Your task to perform on an android device: Go to sound settings Image 0: 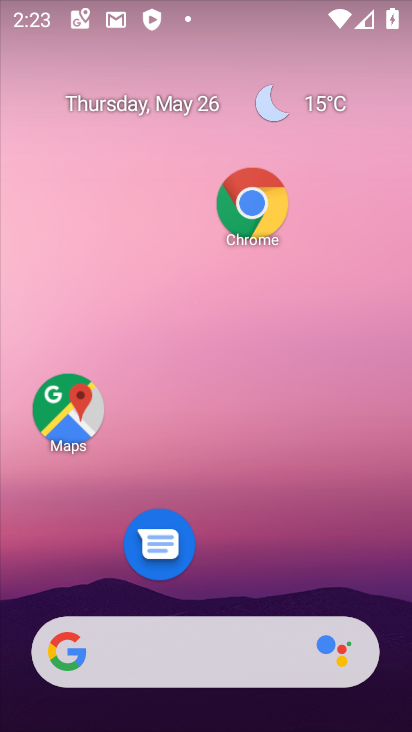
Step 0: drag from (165, 532) to (241, 153)
Your task to perform on an android device: Go to sound settings Image 1: 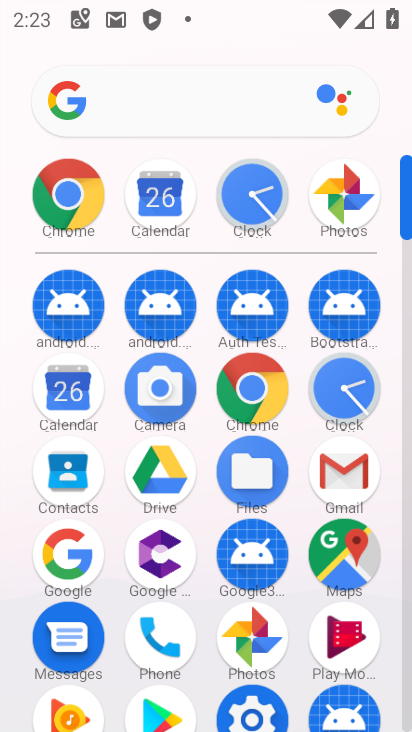
Step 1: drag from (164, 541) to (265, 83)
Your task to perform on an android device: Go to sound settings Image 2: 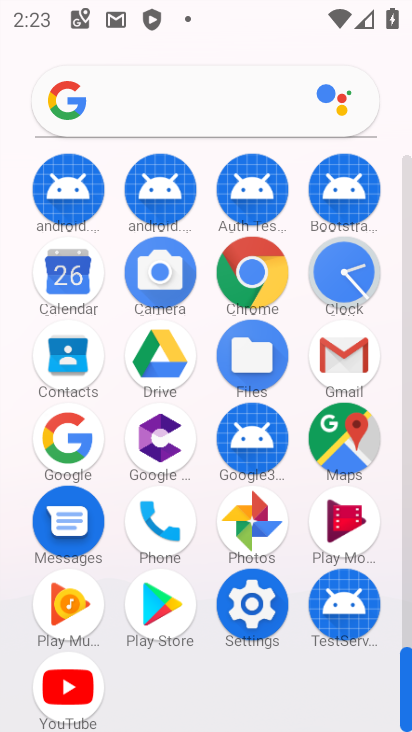
Step 2: click (245, 623)
Your task to perform on an android device: Go to sound settings Image 3: 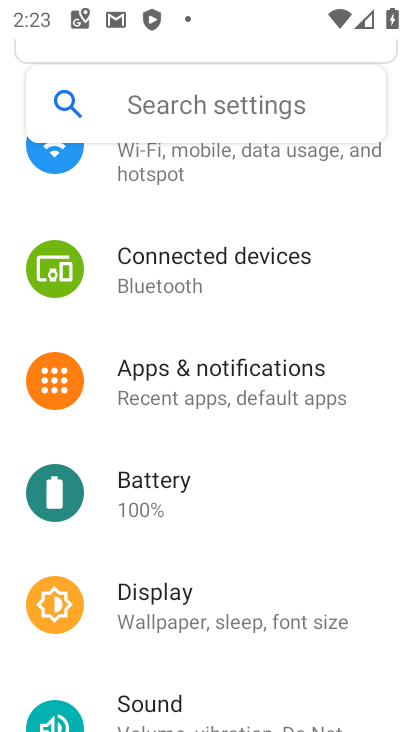
Step 3: drag from (199, 611) to (265, 138)
Your task to perform on an android device: Go to sound settings Image 4: 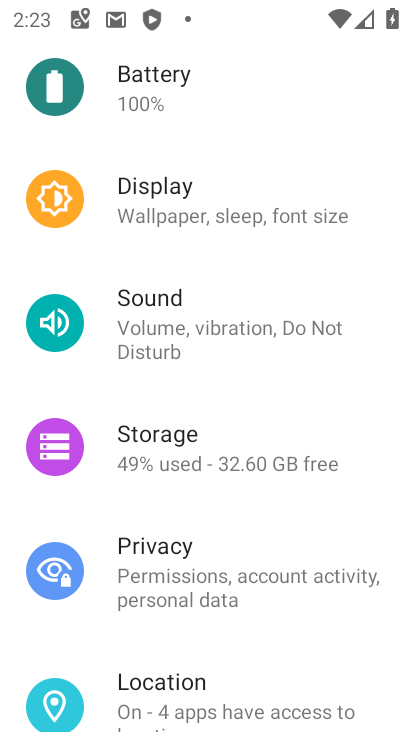
Step 4: click (172, 314)
Your task to perform on an android device: Go to sound settings Image 5: 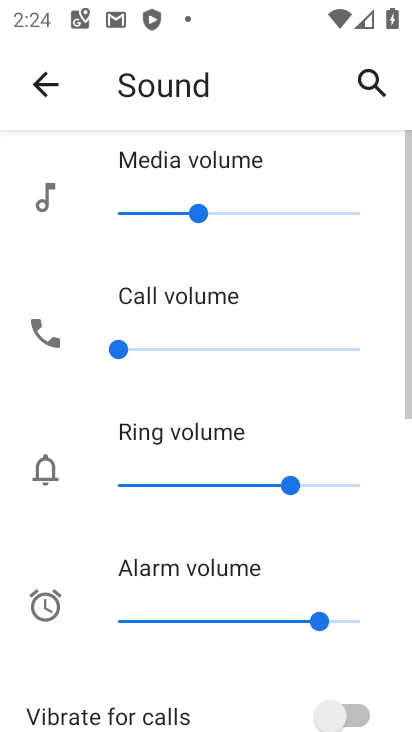
Step 5: task complete